Your task to perform on an android device: turn vacation reply on in the gmail app Image 0: 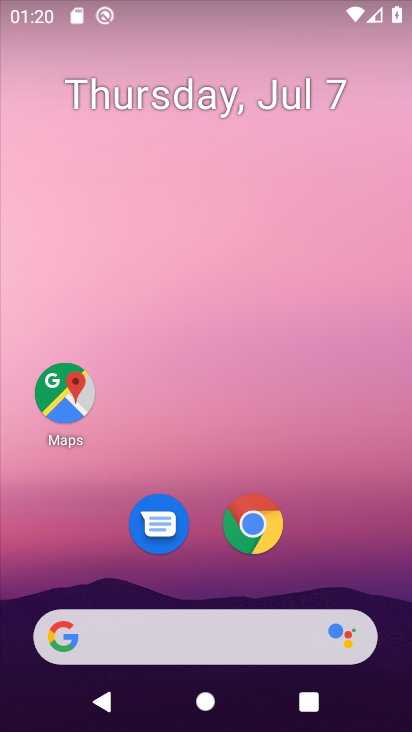
Step 0: drag from (331, 554) to (322, 41)
Your task to perform on an android device: turn vacation reply on in the gmail app Image 1: 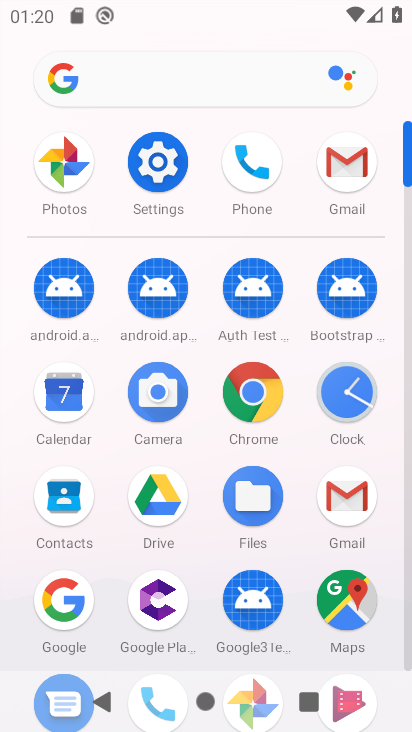
Step 1: click (345, 169)
Your task to perform on an android device: turn vacation reply on in the gmail app Image 2: 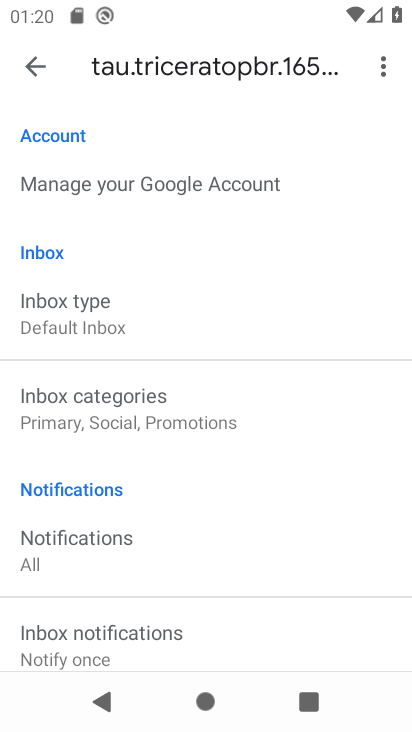
Step 2: click (33, 64)
Your task to perform on an android device: turn vacation reply on in the gmail app Image 3: 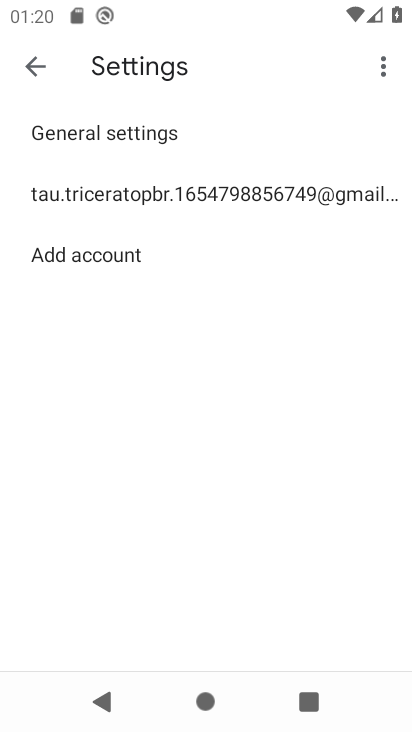
Step 3: click (141, 193)
Your task to perform on an android device: turn vacation reply on in the gmail app Image 4: 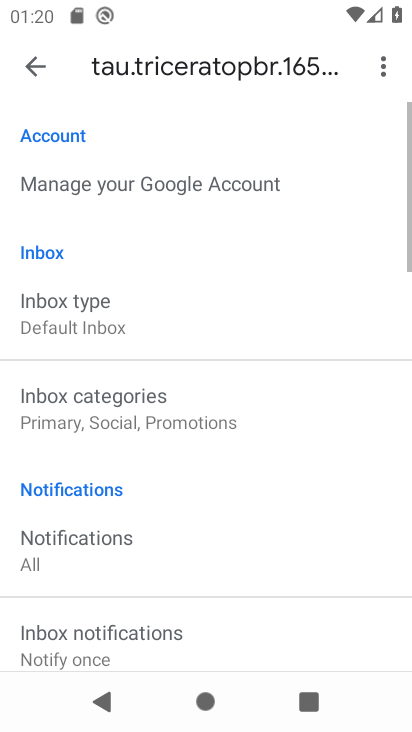
Step 4: drag from (254, 500) to (239, 93)
Your task to perform on an android device: turn vacation reply on in the gmail app Image 5: 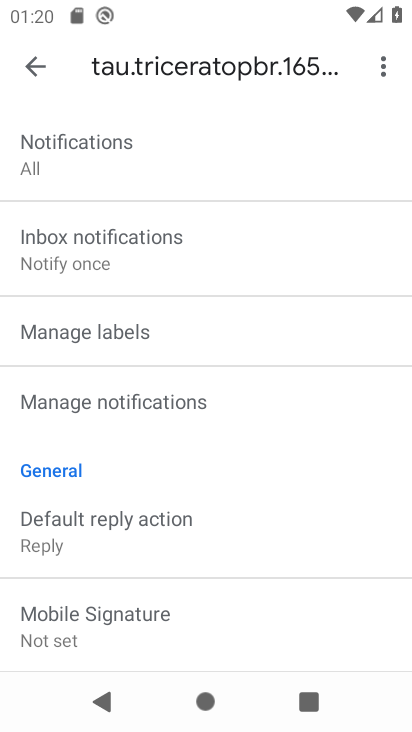
Step 5: drag from (207, 423) to (184, 63)
Your task to perform on an android device: turn vacation reply on in the gmail app Image 6: 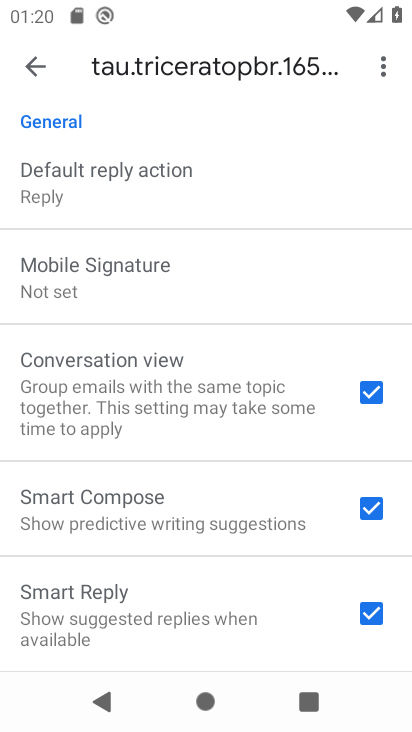
Step 6: drag from (214, 601) to (211, 216)
Your task to perform on an android device: turn vacation reply on in the gmail app Image 7: 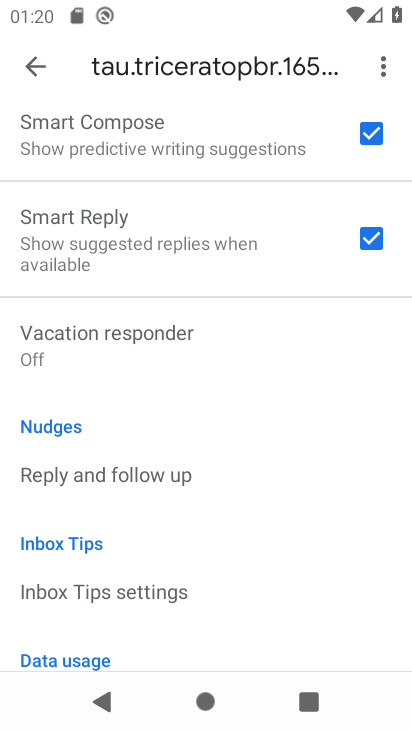
Step 7: click (210, 335)
Your task to perform on an android device: turn vacation reply on in the gmail app Image 8: 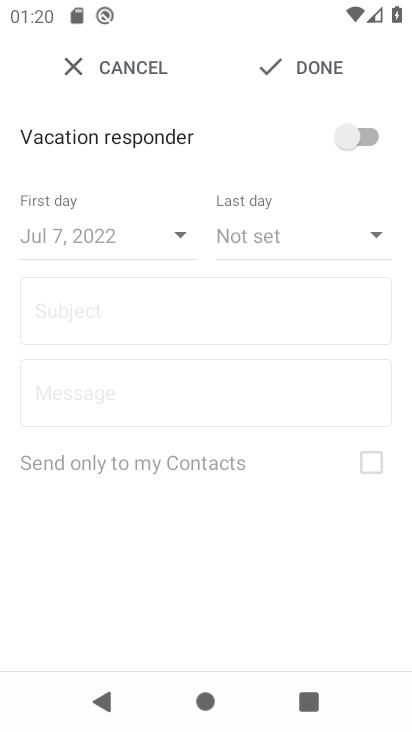
Step 8: click (357, 134)
Your task to perform on an android device: turn vacation reply on in the gmail app Image 9: 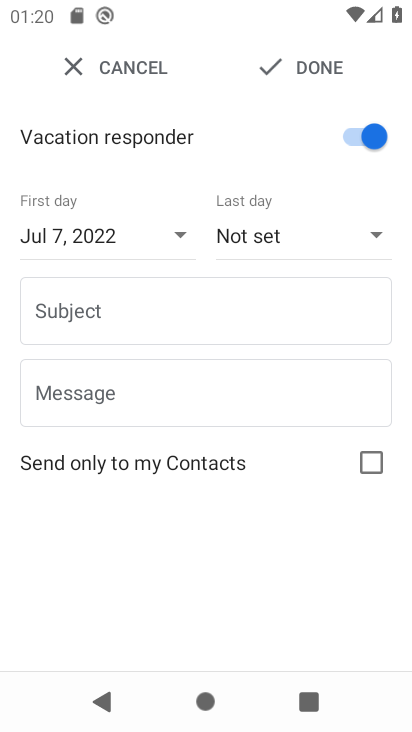
Step 9: task complete